Your task to perform on an android device: find snoozed emails in the gmail app Image 0: 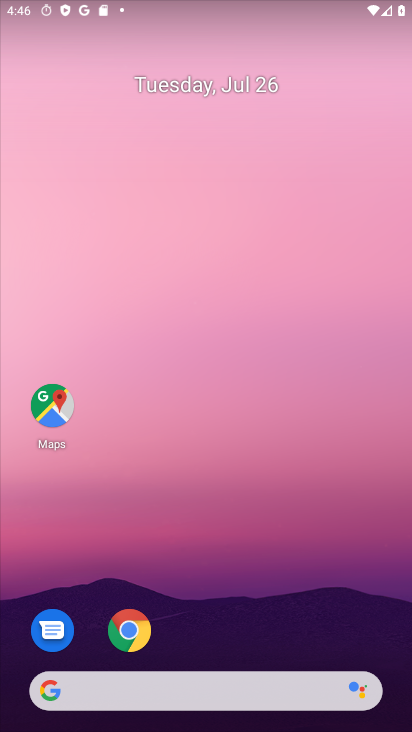
Step 0: drag from (286, 577) to (241, 33)
Your task to perform on an android device: find snoozed emails in the gmail app Image 1: 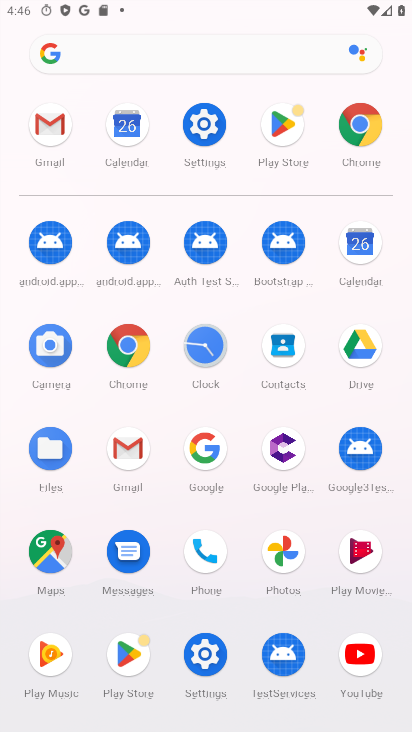
Step 1: click (37, 118)
Your task to perform on an android device: find snoozed emails in the gmail app Image 2: 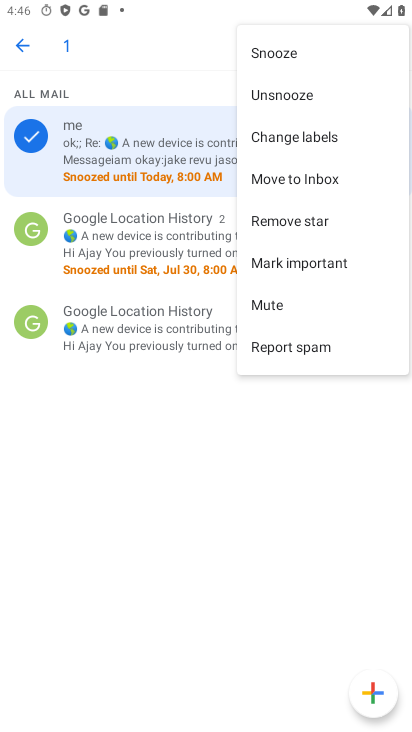
Step 2: click (30, 46)
Your task to perform on an android device: find snoozed emails in the gmail app Image 3: 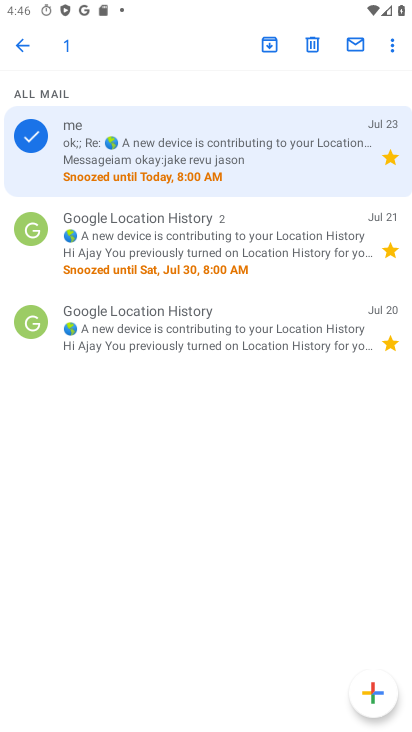
Step 3: click (30, 46)
Your task to perform on an android device: find snoozed emails in the gmail app Image 4: 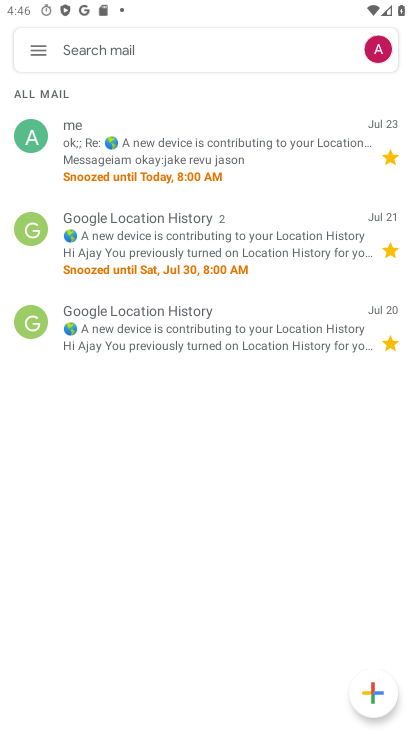
Step 4: click (39, 47)
Your task to perform on an android device: find snoozed emails in the gmail app Image 5: 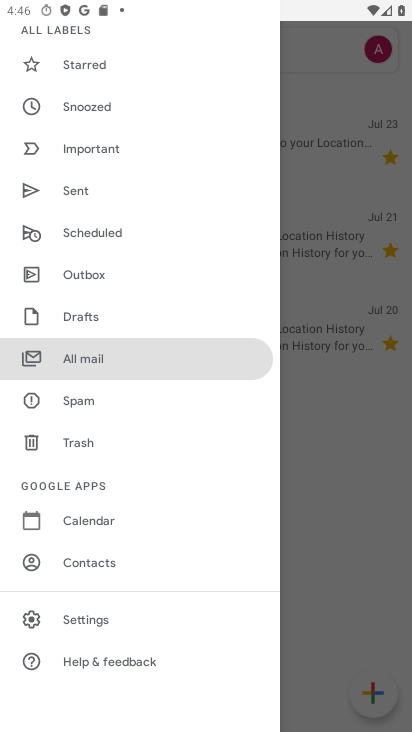
Step 5: click (88, 99)
Your task to perform on an android device: find snoozed emails in the gmail app Image 6: 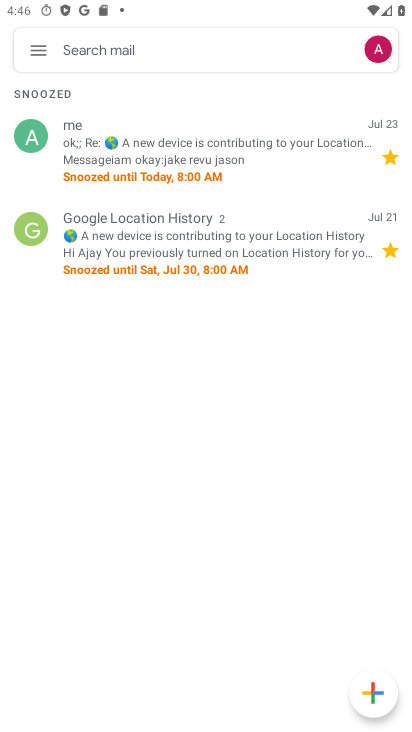
Step 6: task complete